Your task to perform on an android device: Open ESPN.com Image 0: 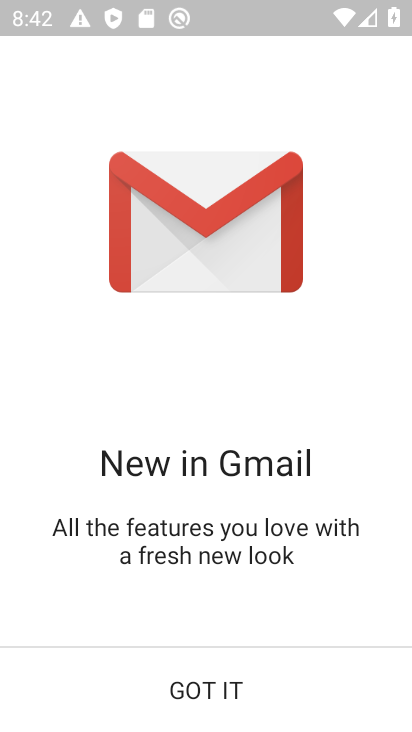
Step 0: click (225, 675)
Your task to perform on an android device: Open ESPN.com Image 1: 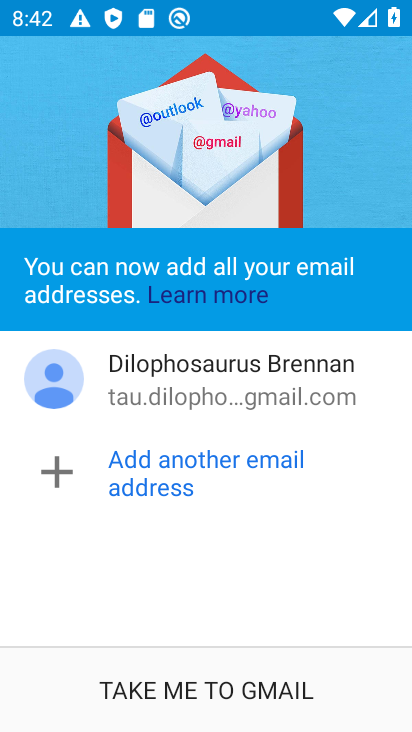
Step 1: click (217, 656)
Your task to perform on an android device: Open ESPN.com Image 2: 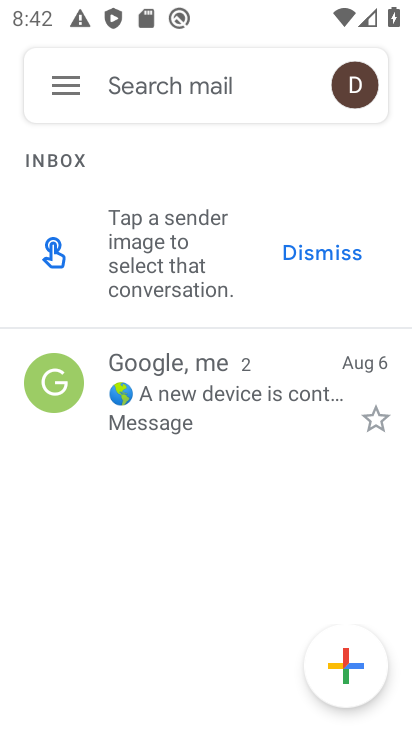
Step 2: press home button
Your task to perform on an android device: Open ESPN.com Image 3: 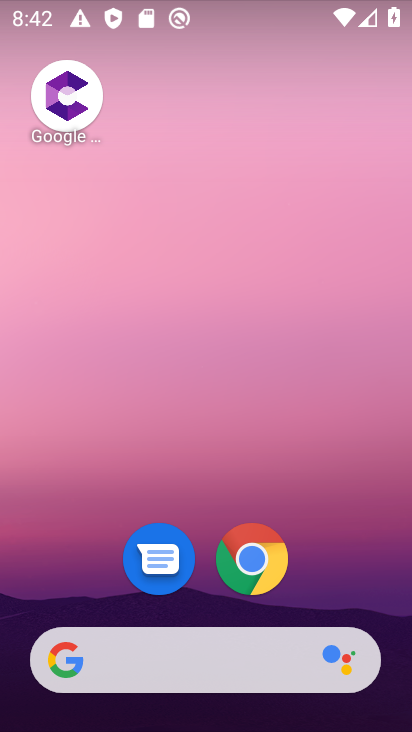
Step 3: click (248, 537)
Your task to perform on an android device: Open ESPN.com Image 4: 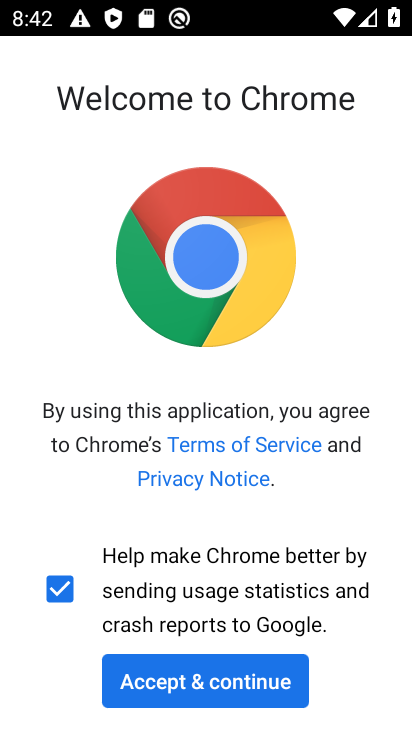
Step 4: click (274, 687)
Your task to perform on an android device: Open ESPN.com Image 5: 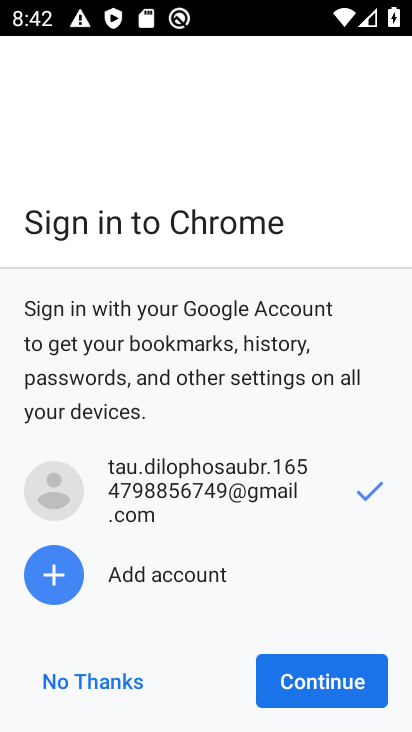
Step 5: click (287, 686)
Your task to perform on an android device: Open ESPN.com Image 6: 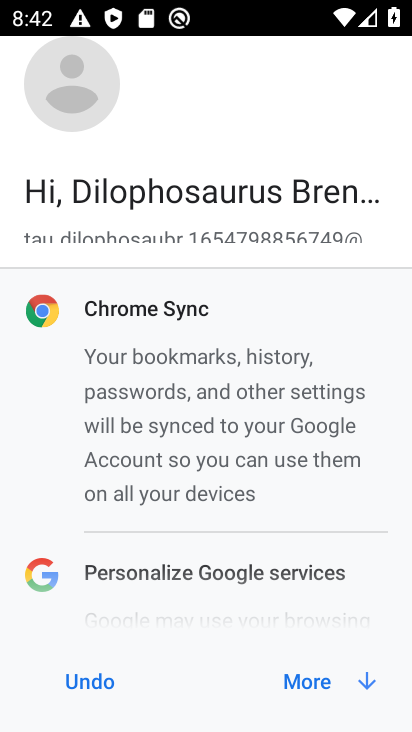
Step 6: click (296, 683)
Your task to perform on an android device: Open ESPN.com Image 7: 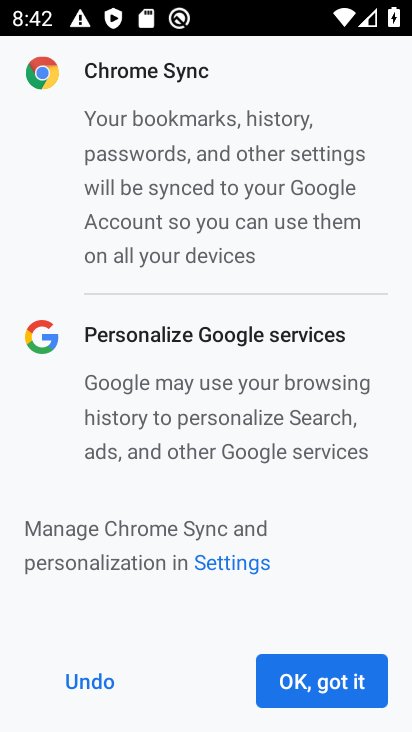
Step 7: click (296, 683)
Your task to perform on an android device: Open ESPN.com Image 8: 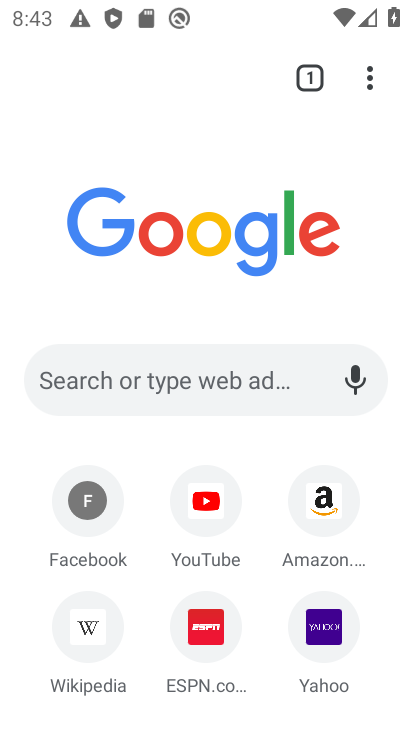
Step 8: click (226, 611)
Your task to perform on an android device: Open ESPN.com Image 9: 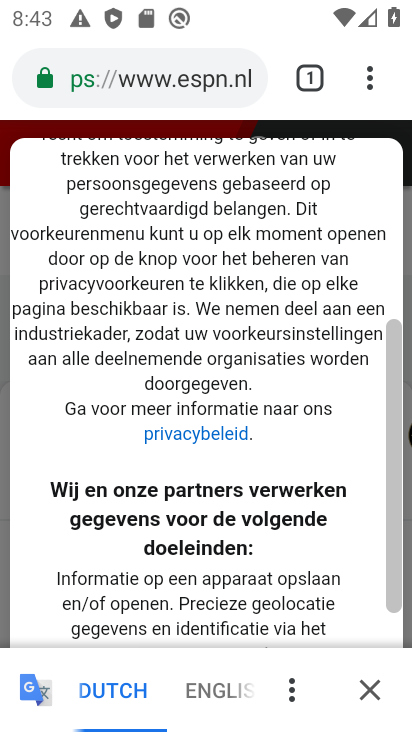
Step 9: task complete